Your task to perform on an android device: Go to wifi settings Image 0: 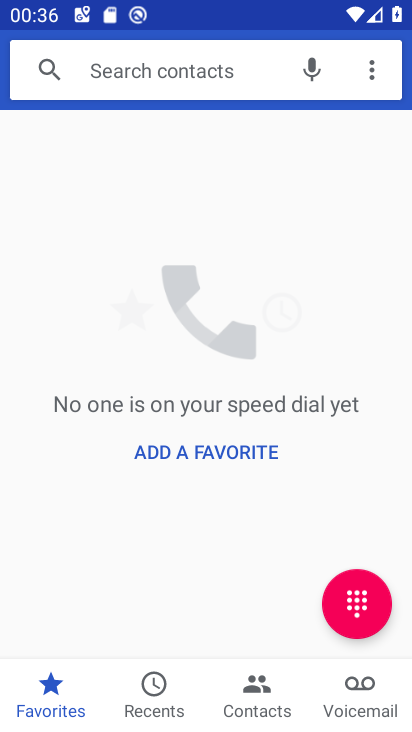
Step 0: press home button
Your task to perform on an android device: Go to wifi settings Image 1: 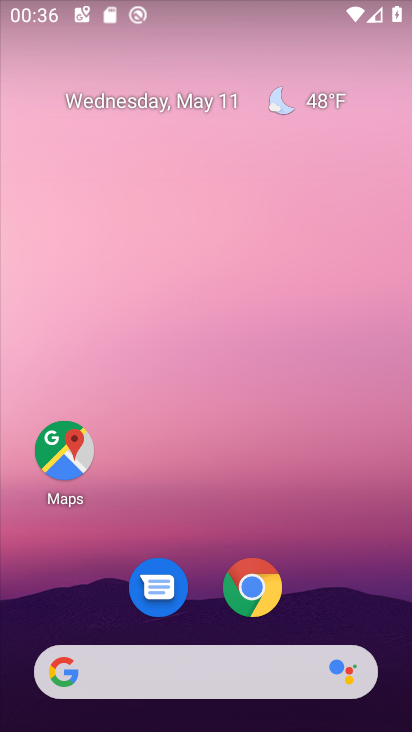
Step 1: drag from (218, 12) to (155, 493)
Your task to perform on an android device: Go to wifi settings Image 2: 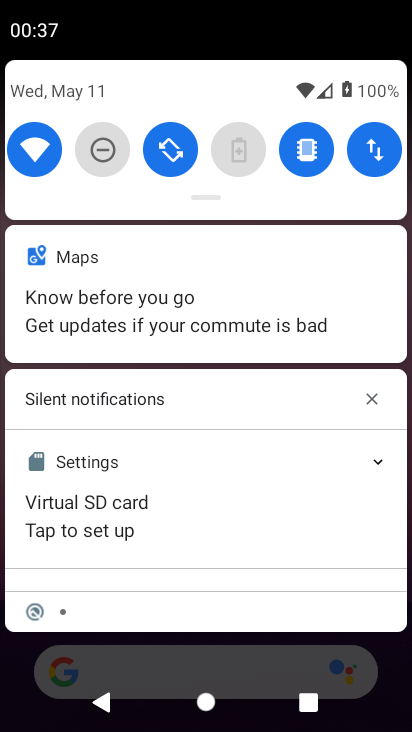
Step 2: click (26, 161)
Your task to perform on an android device: Go to wifi settings Image 3: 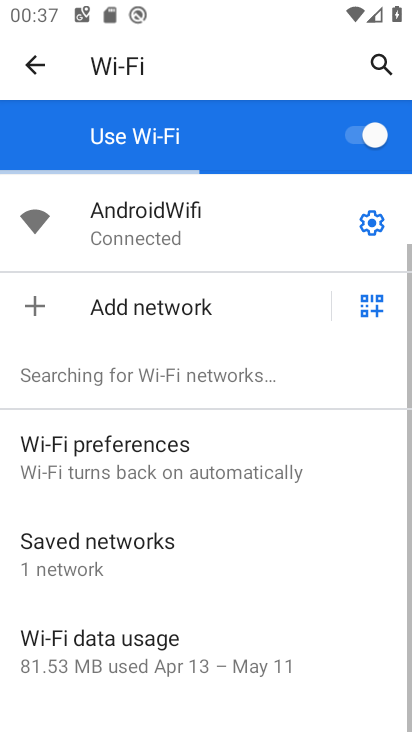
Step 3: task complete